Your task to perform on an android device: Open sound settings Image 0: 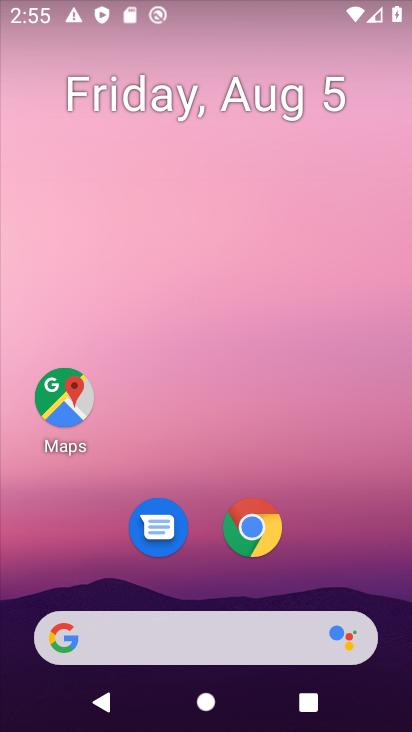
Step 0: drag from (207, 595) to (159, 85)
Your task to perform on an android device: Open sound settings Image 1: 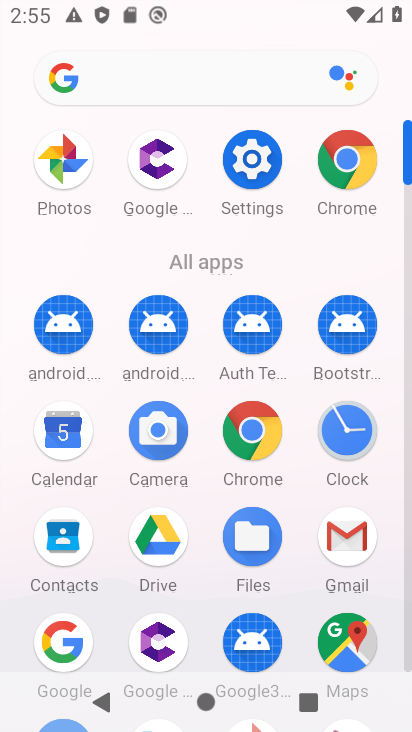
Step 1: click (259, 171)
Your task to perform on an android device: Open sound settings Image 2: 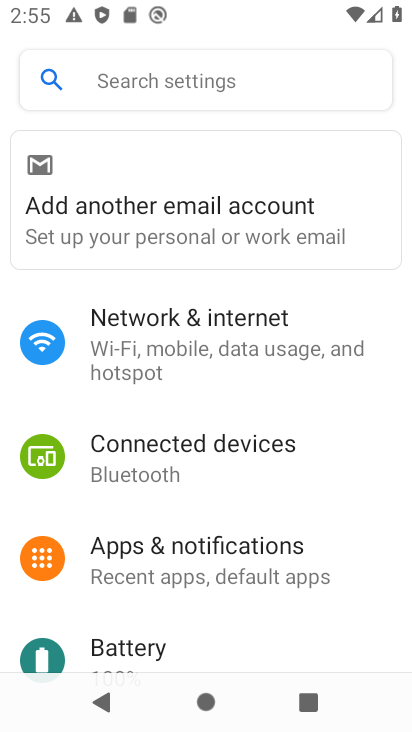
Step 2: drag from (124, 600) to (73, 308)
Your task to perform on an android device: Open sound settings Image 3: 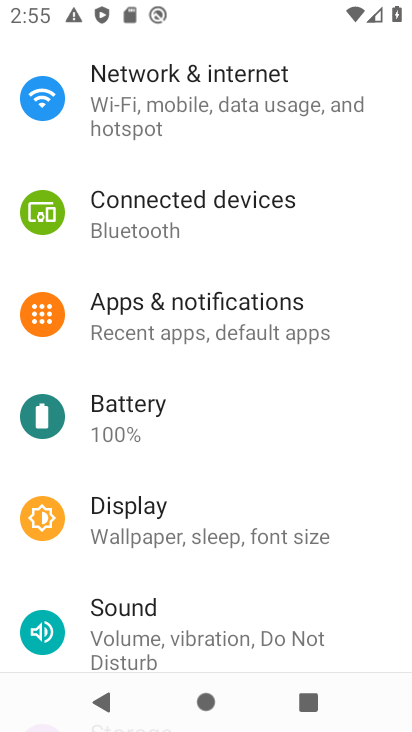
Step 3: click (128, 616)
Your task to perform on an android device: Open sound settings Image 4: 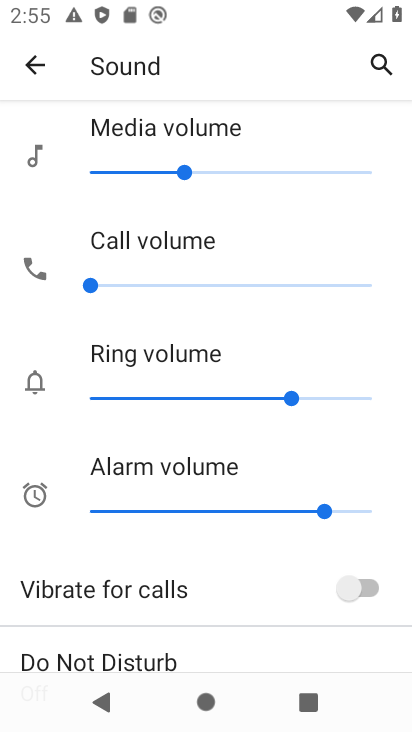
Step 4: task complete